Your task to perform on an android device: Go to Android settings Image 0: 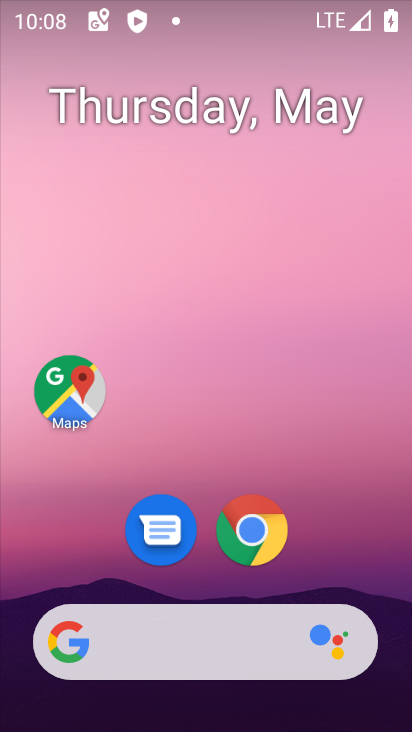
Step 0: drag from (287, 661) to (265, 66)
Your task to perform on an android device: Go to Android settings Image 1: 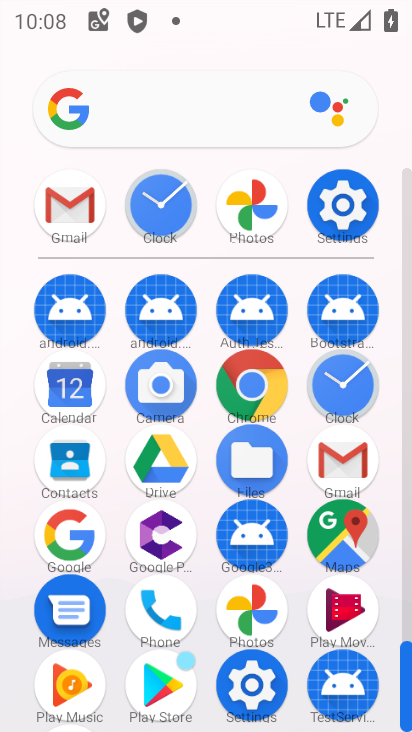
Step 1: click (339, 189)
Your task to perform on an android device: Go to Android settings Image 2: 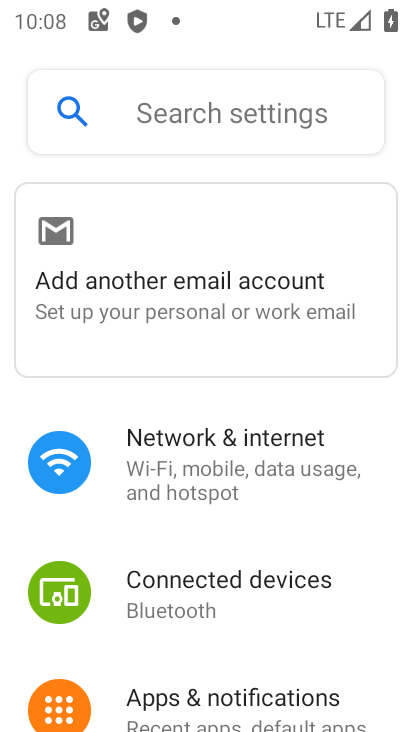
Step 2: drag from (277, 640) to (312, 182)
Your task to perform on an android device: Go to Android settings Image 3: 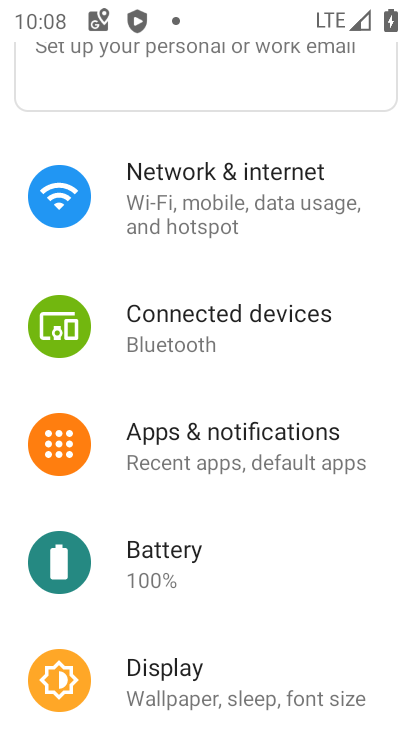
Step 3: drag from (206, 560) to (178, 156)
Your task to perform on an android device: Go to Android settings Image 4: 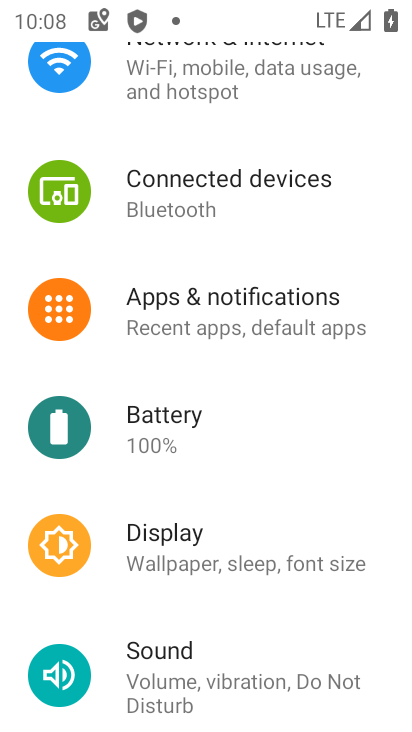
Step 4: drag from (213, 586) to (246, 150)
Your task to perform on an android device: Go to Android settings Image 5: 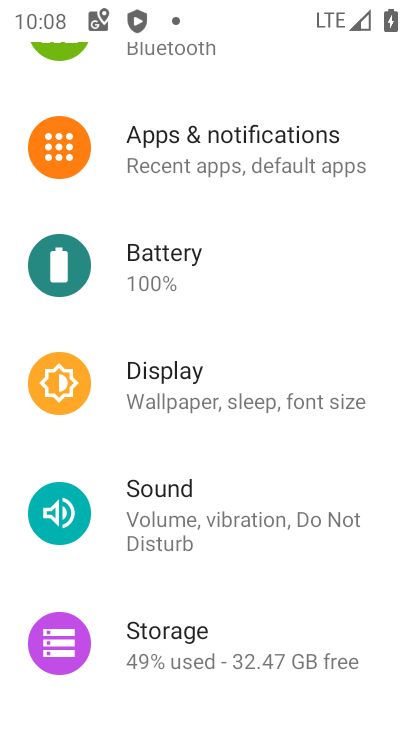
Step 5: drag from (214, 628) to (243, 177)
Your task to perform on an android device: Go to Android settings Image 6: 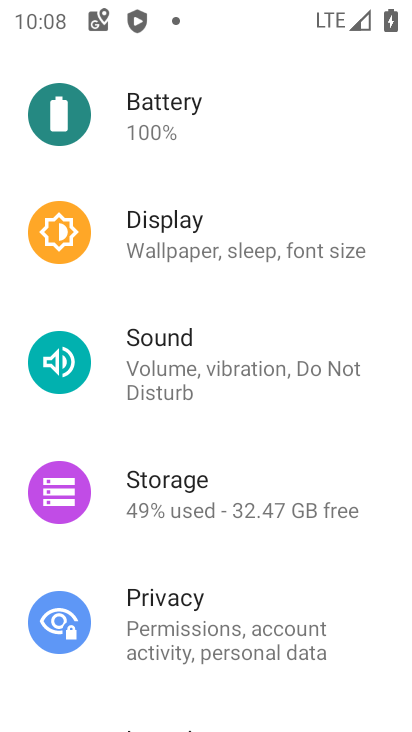
Step 6: drag from (232, 670) to (238, 8)
Your task to perform on an android device: Go to Android settings Image 7: 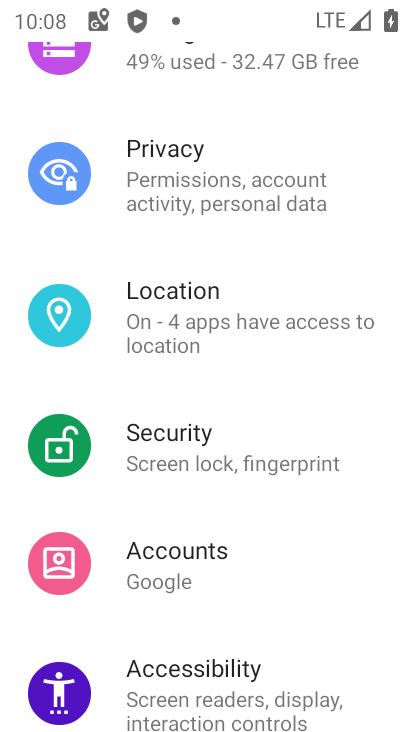
Step 7: drag from (253, 672) to (189, 54)
Your task to perform on an android device: Go to Android settings Image 8: 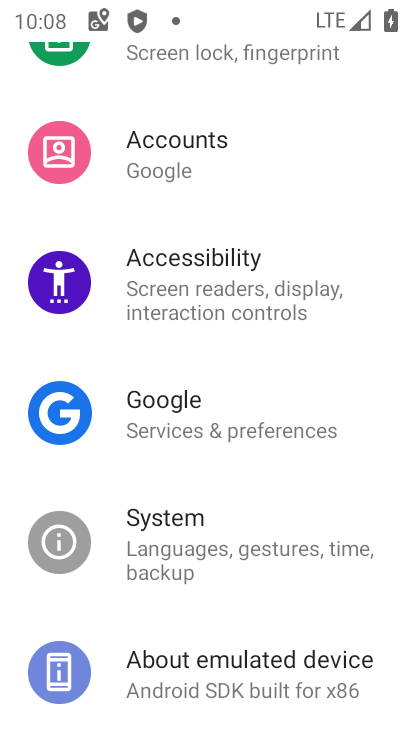
Step 8: click (237, 677)
Your task to perform on an android device: Go to Android settings Image 9: 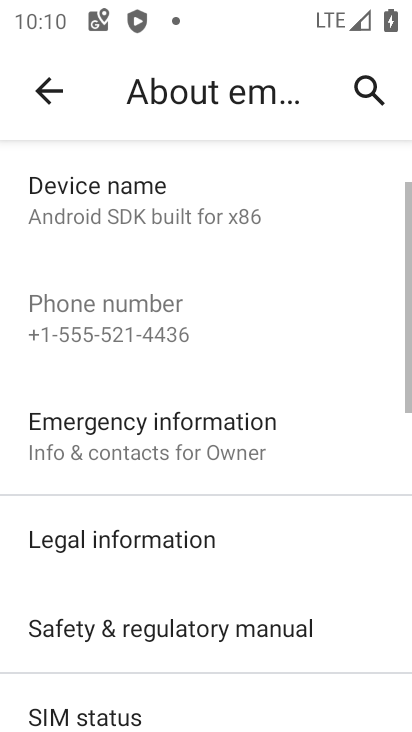
Step 9: task complete